Your task to perform on an android device: open the mobile data screen to see how much data has been used Image 0: 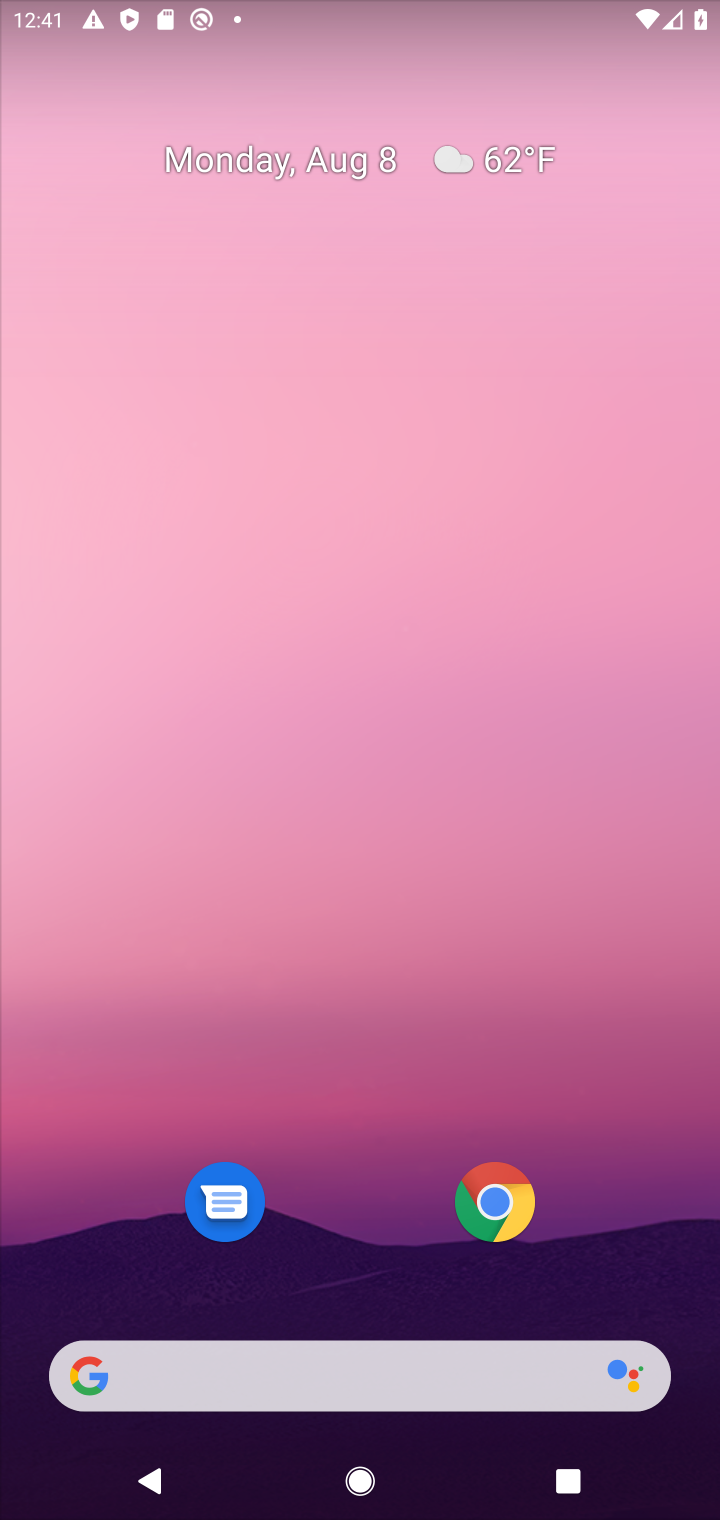
Step 0: drag from (316, 426) to (176, 38)
Your task to perform on an android device: open the mobile data screen to see how much data has been used Image 1: 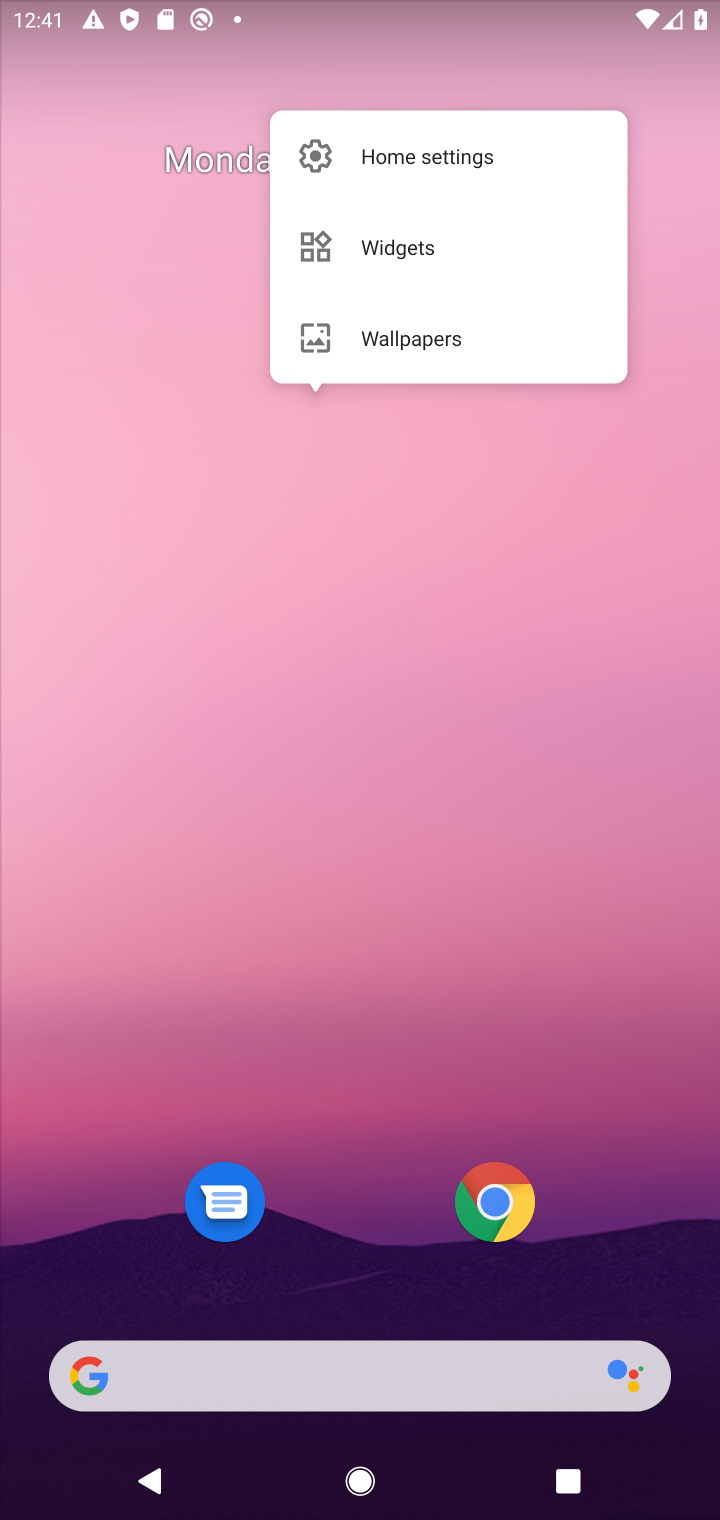
Step 1: drag from (437, 1126) to (266, 356)
Your task to perform on an android device: open the mobile data screen to see how much data has been used Image 2: 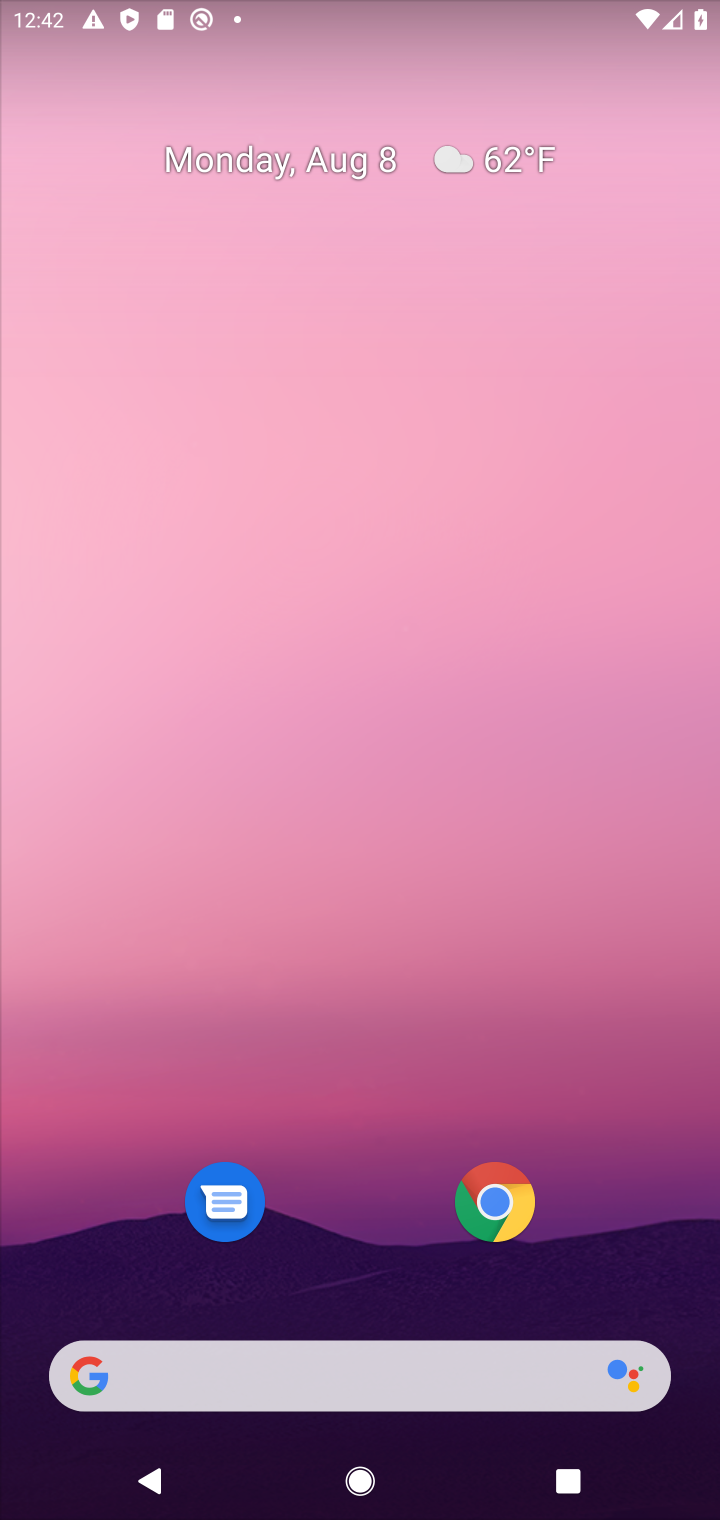
Step 2: drag from (334, 214) to (4, 1011)
Your task to perform on an android device: open the mobile data screen to see how much data has been used Image 3: 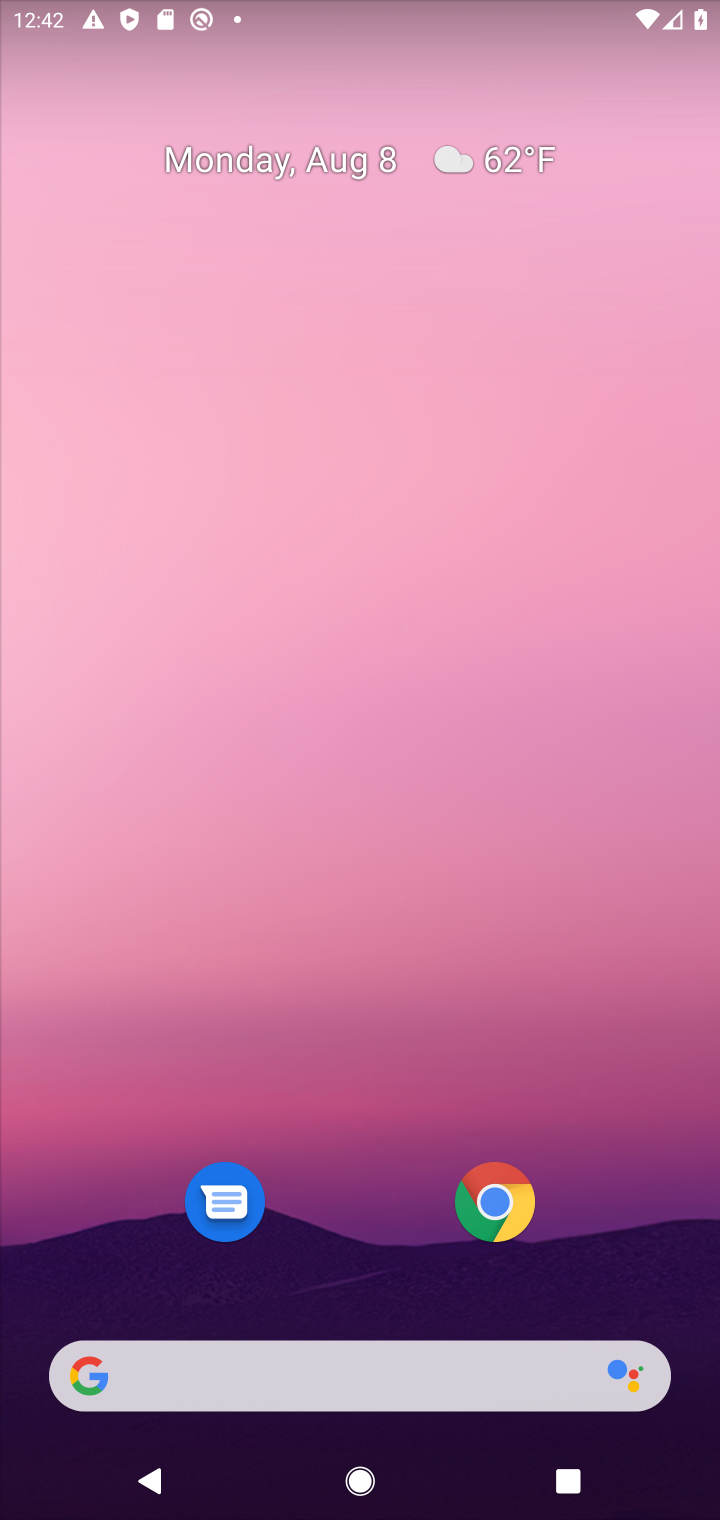
Step 3: drag from (340, 1250) to (340, 238)
Your task to perform on an android device: open the mobile data screen to see how much data has been used Image 4: 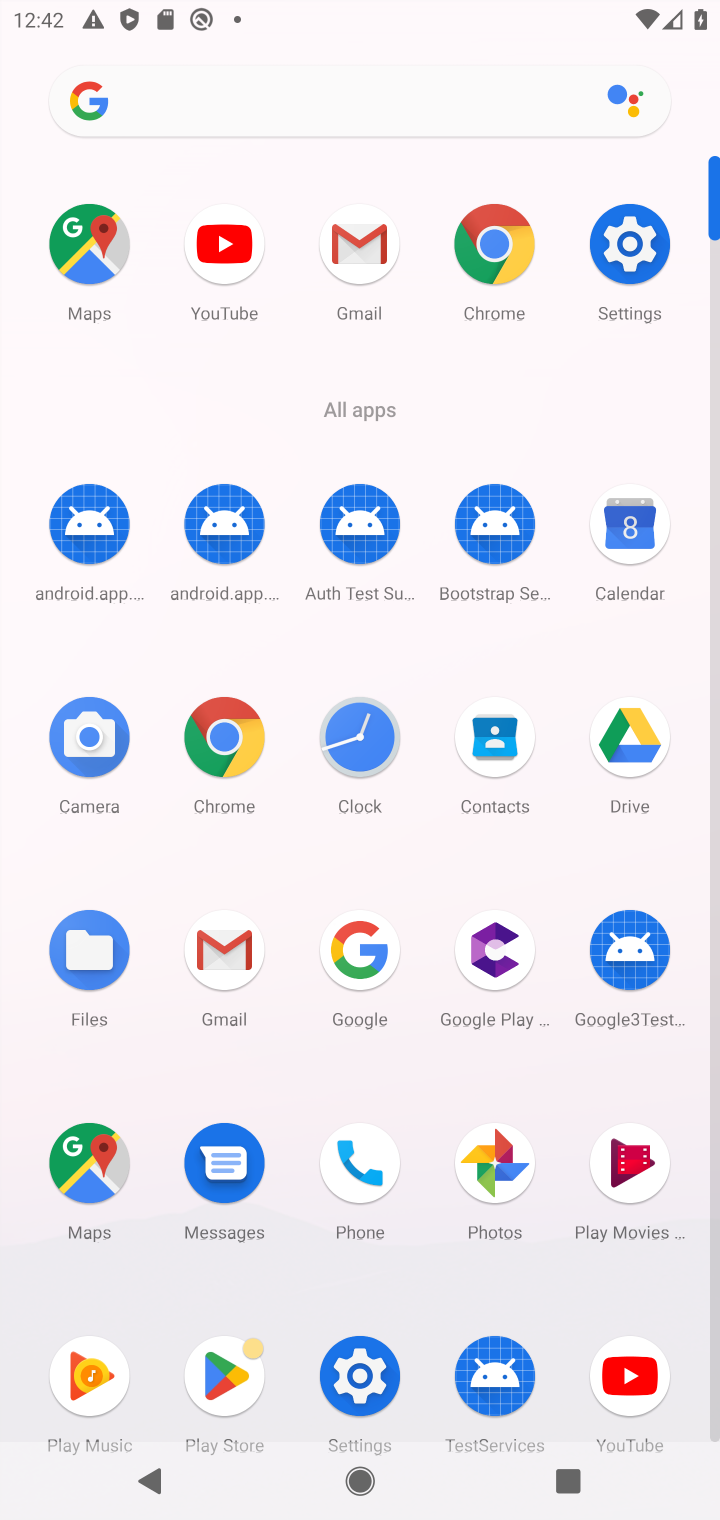
Step 4: click (621, 249)
Your task to perform on an android device: open the mobile data screen to see how much data has been used Image 5: 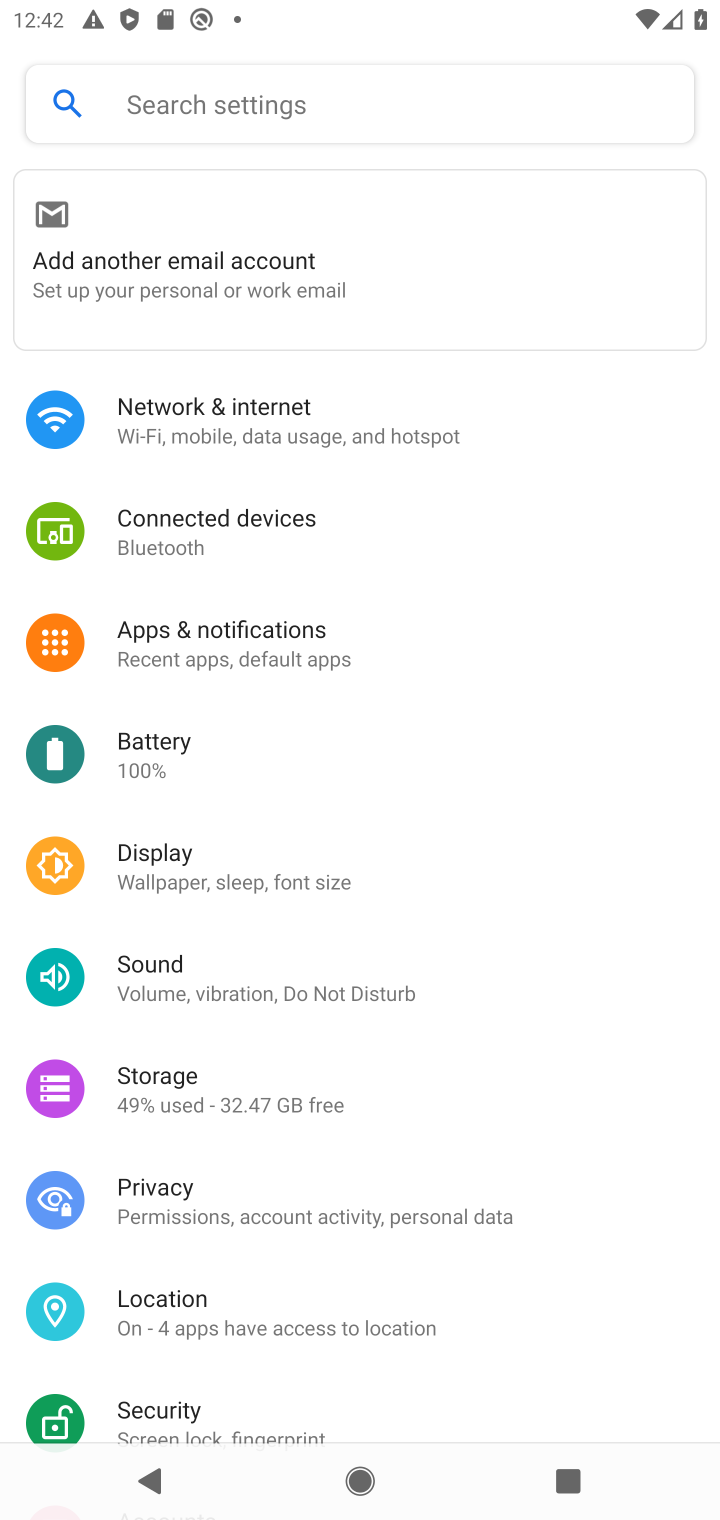
Step 5: click (241, 427)
Your task to perform on an android device: open the mobile data screen to see how much data has been used Image 6: 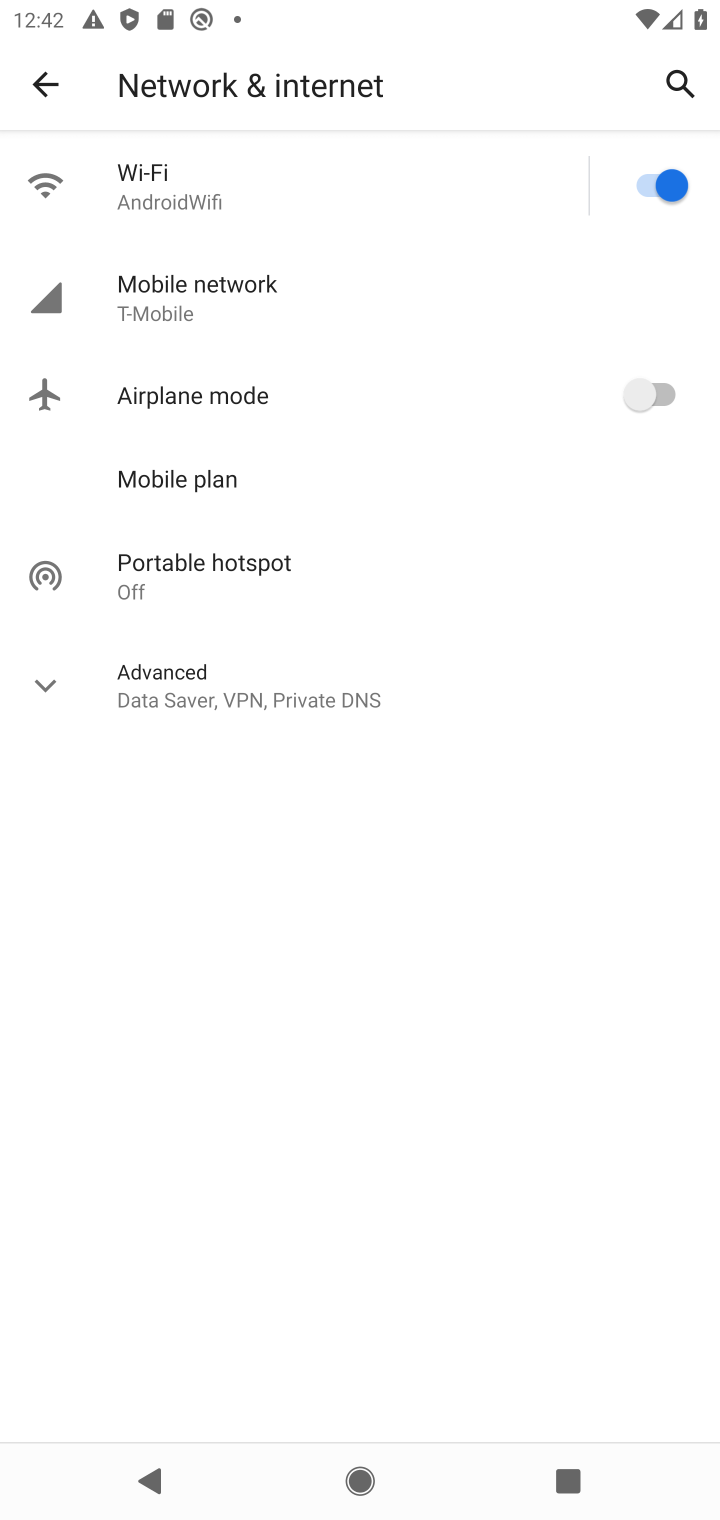
Step 6: click (167, 318)
Your task to perform on an android device: open the mobile data screen to see how much data has been used Image 7: 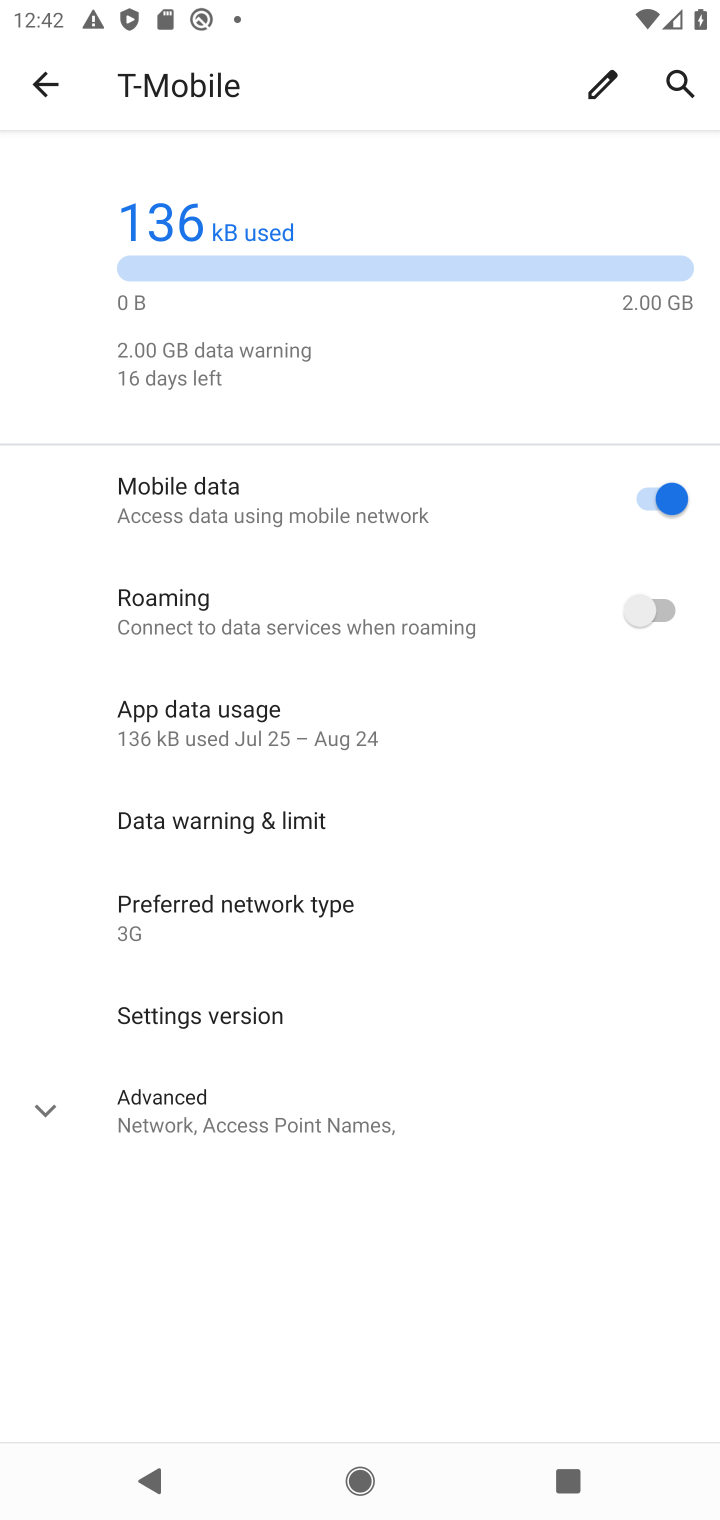
Step 7: task complete